Your task to perform on an android device: Open Google Chrome Image 0: 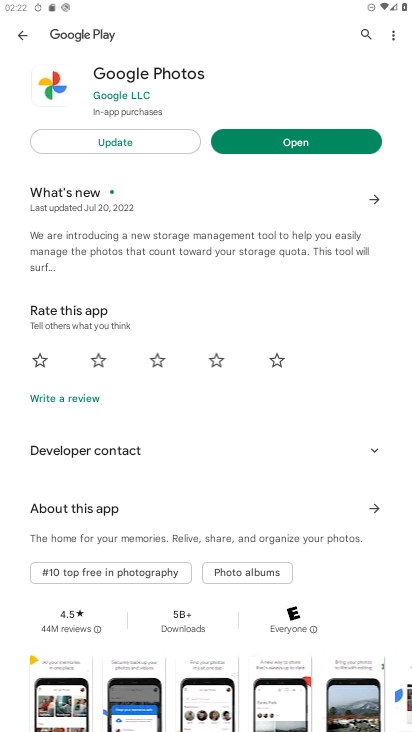
Step 0: press home button
Your task to perform on an android device: Open Google Chrome Image 1: 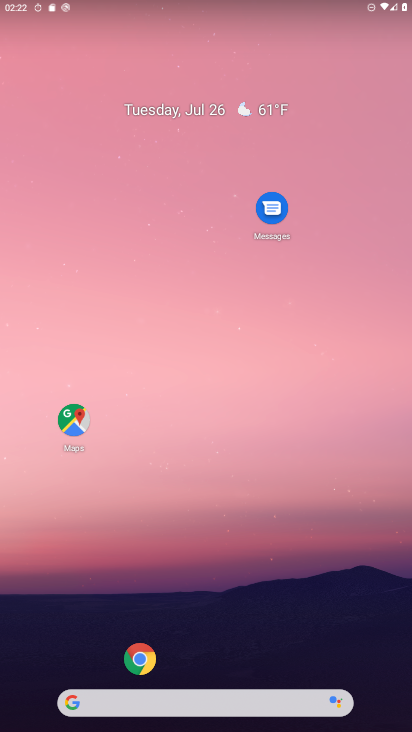
Step 1: click (149, 660)
Your task to perform on an android device: Open Google Chrome Image 2: 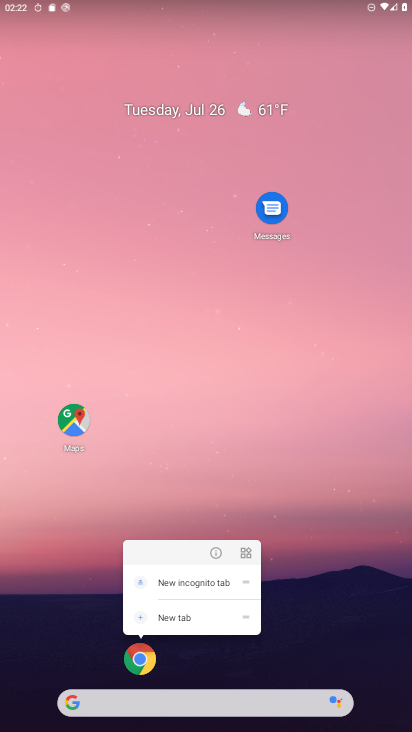
Step 2: click (147, 662)
Your task to perform on an android device: Open Google Chrome Image 3: 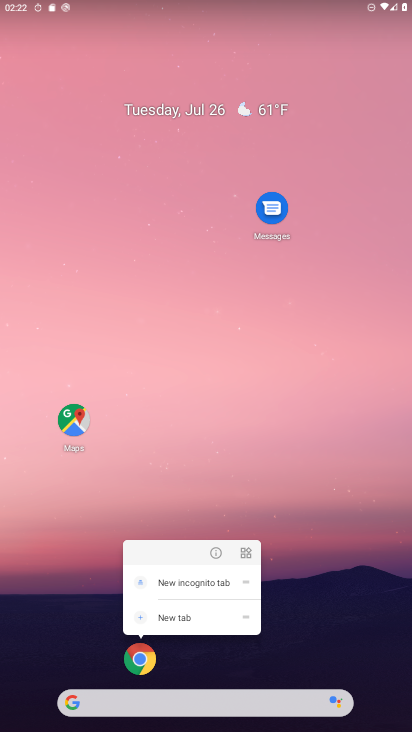
Step 3: click (142, 657)
Your task to perform on an android device: Open Google Chrome Image 4: 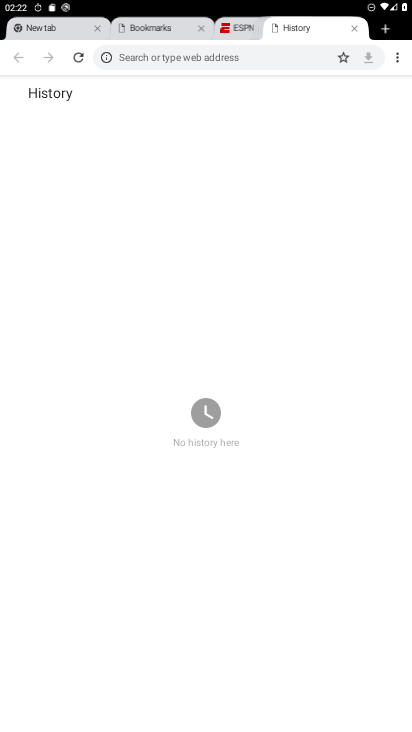
Step 4: click (388, 30)
Your task to perform on an android device: Open Google Chrome Image 5: 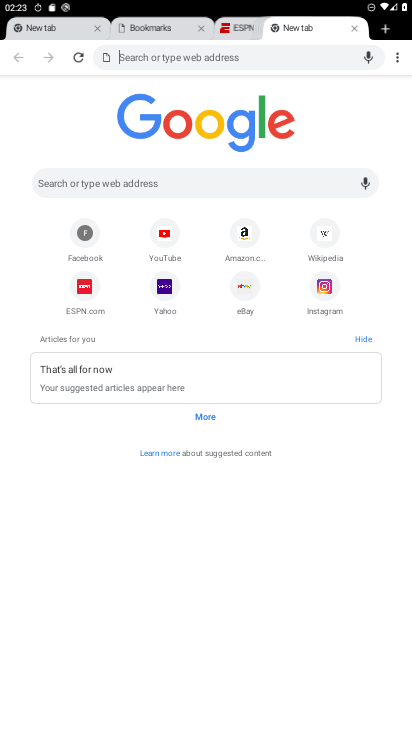
Step 5: task complete